Your task to perform on an android device: Show me the alarms in the clock app Image 0: 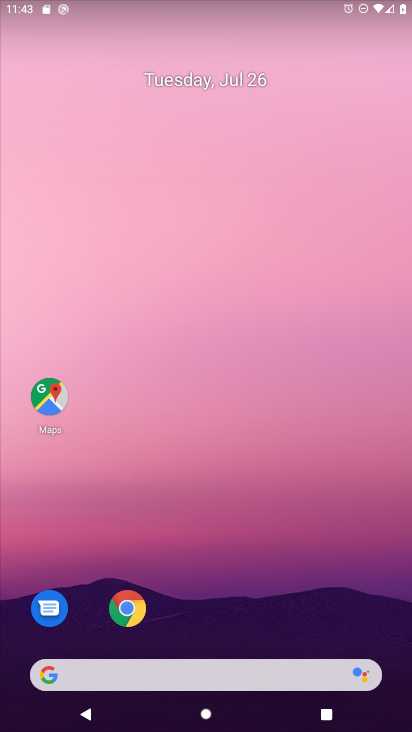
Step 0: drag from (303, 547) to (249, 50)
Your task to perform on an android device: Show me the alarms in the clock app Image 1: 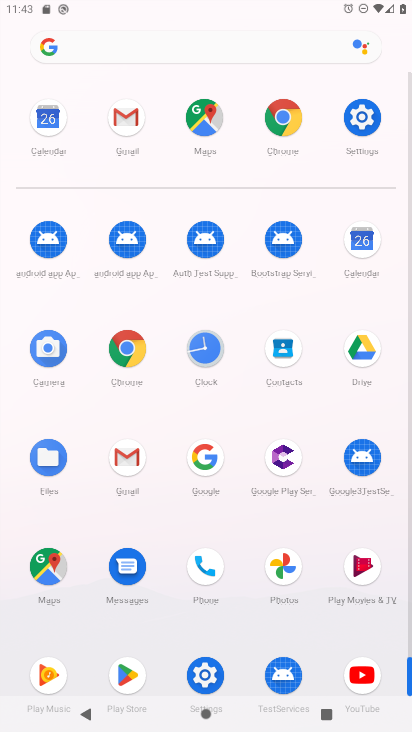
Step 1: click (207, 358)
Your task to perform on an android device: Show me the alarms in the clock app Image 2: 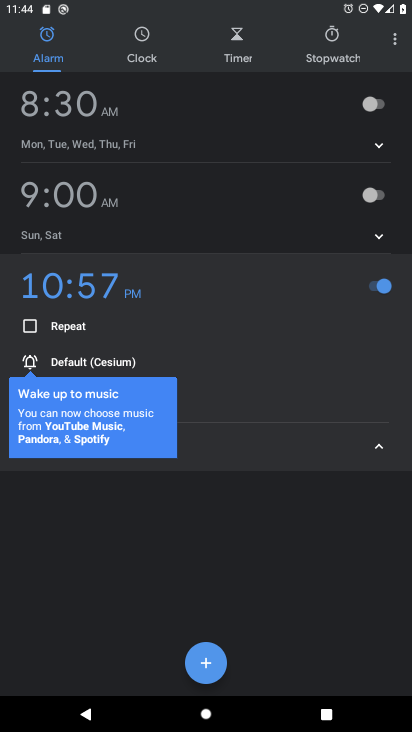
Step 2: task complete